Your task to perform on an android device: Open display settings Image 0: 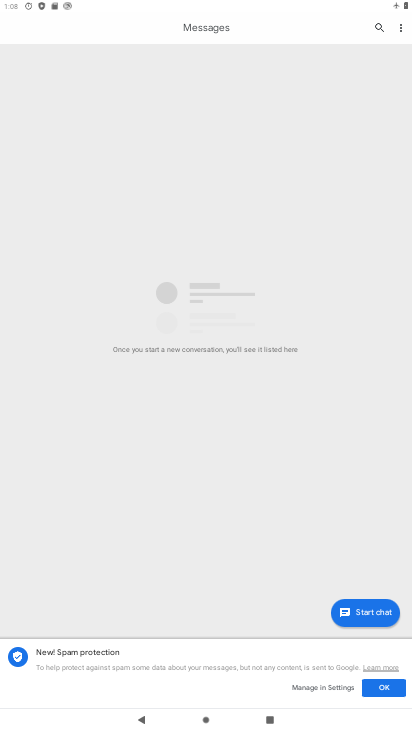
Step 0: press home button
Your task to perform on an android device: Open display settings Image 1: 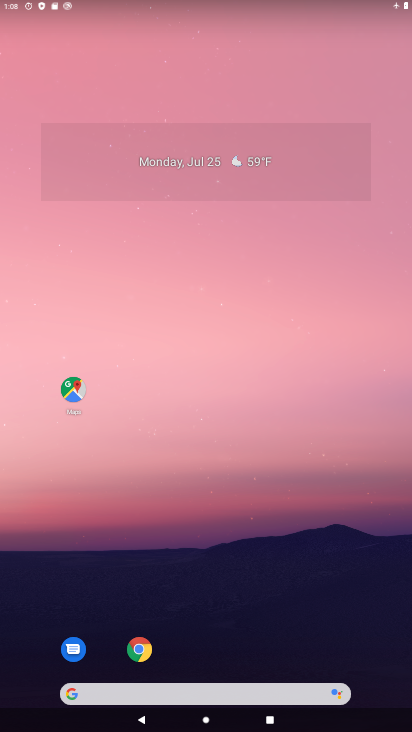
Step 1: drag from (193, 692) to (190, 73)
Your task to perform on an android device: Open display settings Image 2: 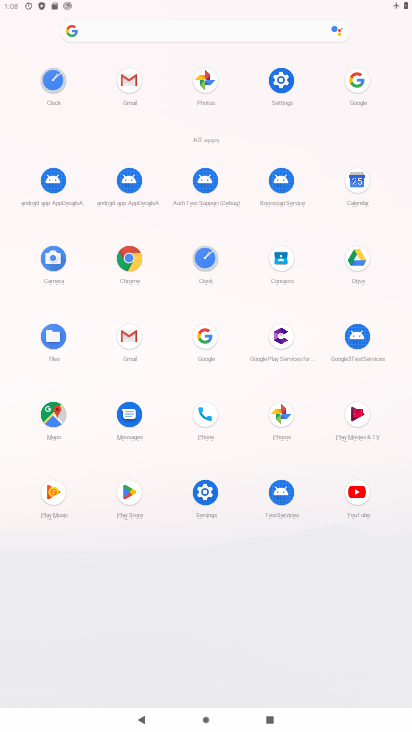
Step 2: click (280, 78)
Your task to perform on an android device: Open display settings Image 3: 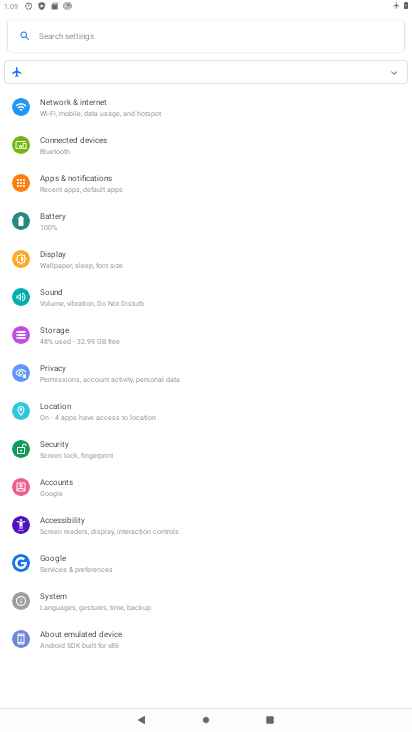
Step 3: click (62, 265)
Your task to perform on an android device: Open display settings Image 4: 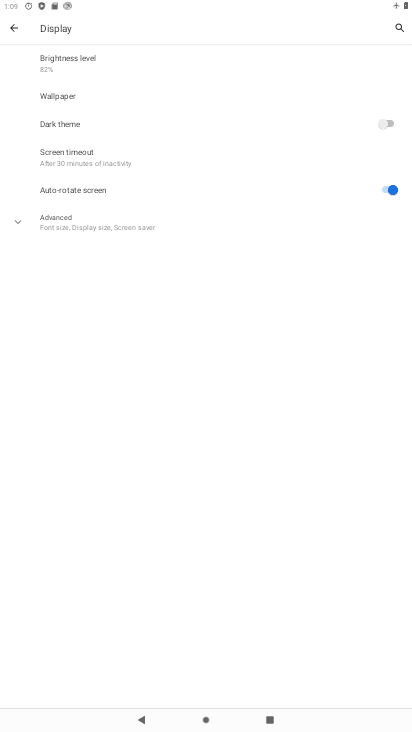
Step 4: task complete